Your task to perform on an android device: Open Google Chrome and open the bookmarks view Image 0: 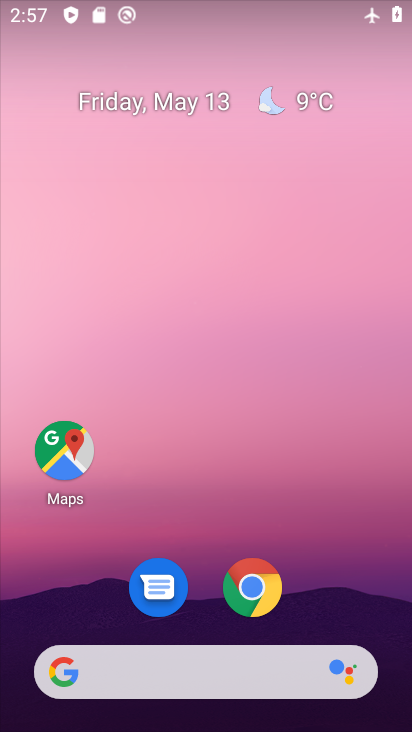
Step 0: click (254, 581)
Your task to perform on an android device: Open Google Chrome and open the bookmarks view Image 1: 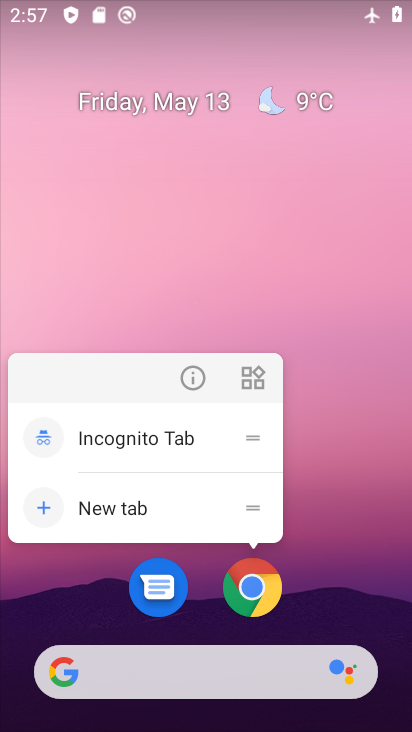
Step 1: click (255, 600)
Your task to perform on an android device: Open Google Chrome and open the bookmarks view Image 2: 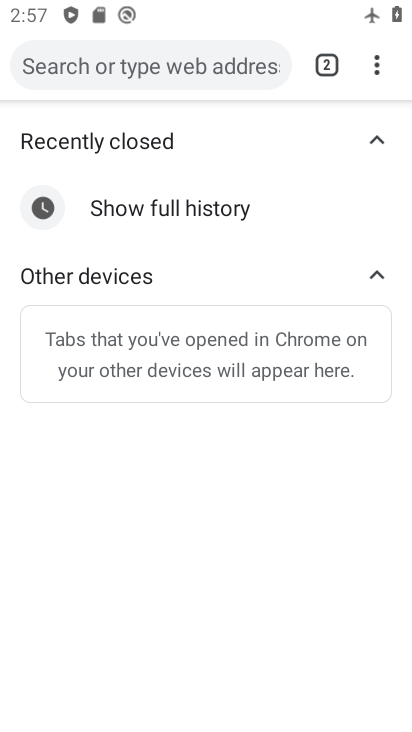
Step 2: task complete